Your task to perform on an android device: Search for Mexican restaurants on Maps Image 0: 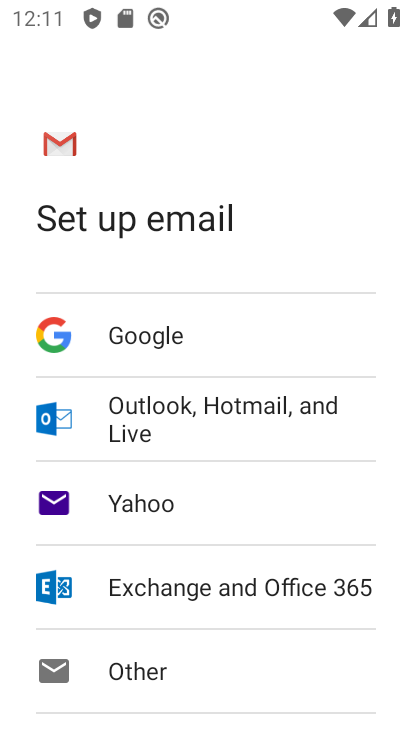
Step 0: press home button
Your task to perform on an android device: Search for Mexican restaurants on Maps Image 1: 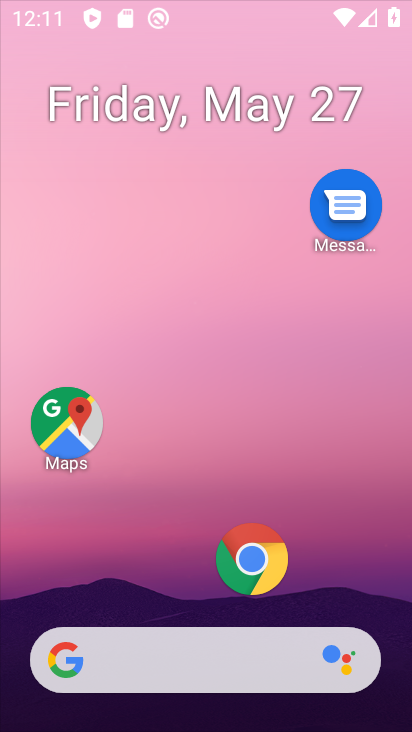
Step 1: drag from (189, 630) to (210, 182)
Your task to perform on an android device: Search for Mexican restaurants on Maps Image 2: 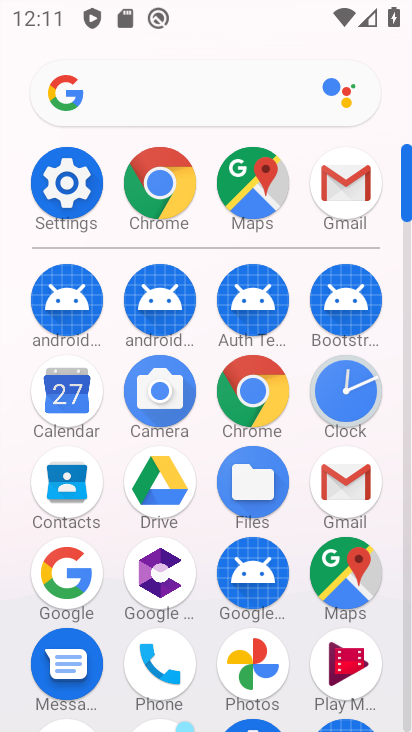
Step 2: click (353, 580)
Your task to perform on an android device: Search for Mexican restaurants on Maps Image 3: 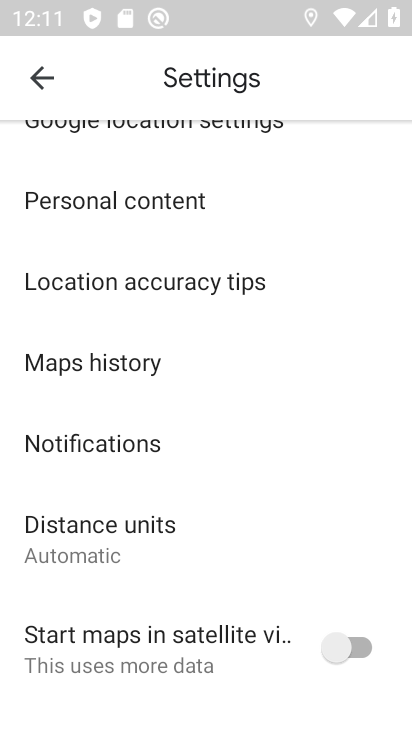
Step 3: click (34, 77)
Your task to perform on an android device: Search for Mexican restaurants on Maps Image 4: 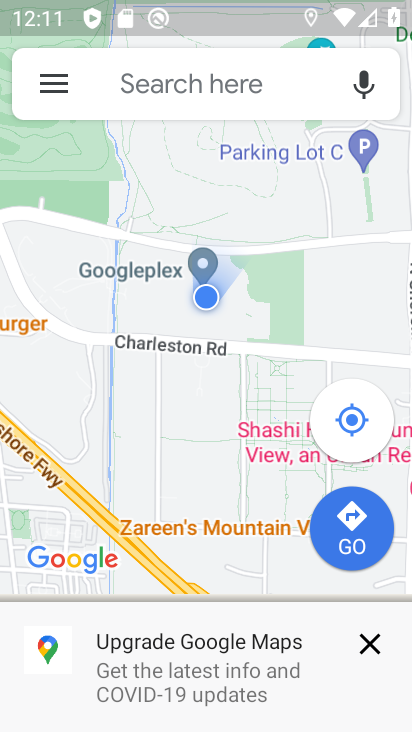
Step 4: click (184, 70)
Your task to perform on an android device: Search for Mexican restaurants on Maps Image 5: 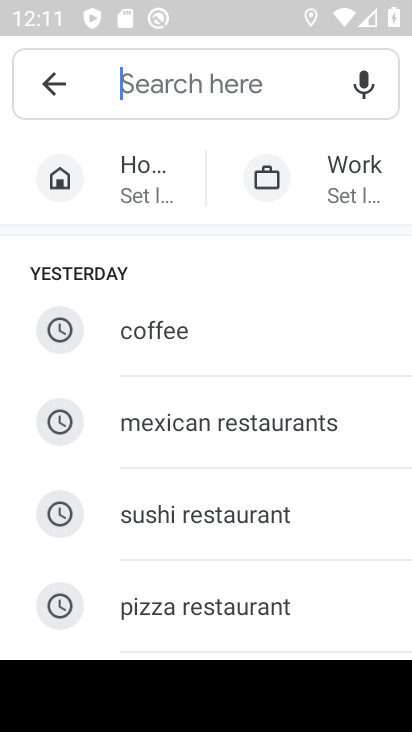
Step 5: click (222, 416)
Your task to perform on an android device: Search for Mexican restaurants on Maps Image 6: 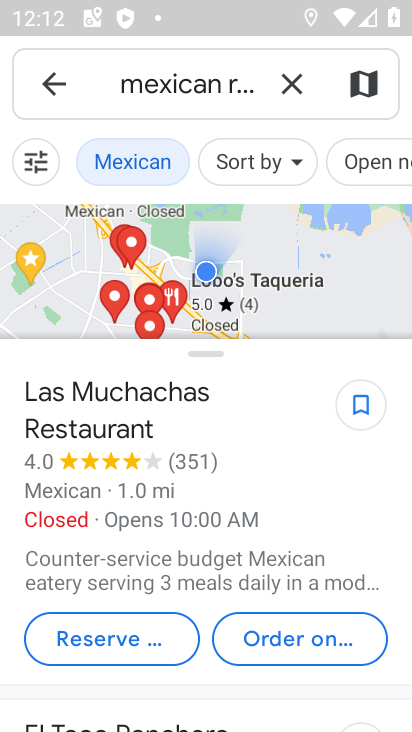
Step 6: task complete